Your task to perform on an android device: What's the news in Bangladesh? Image 0: 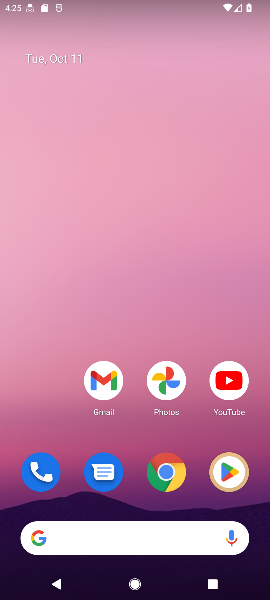
Step 0: click (171, 483)
Your task to perform on an android device: What's the news in Bangladesh? Image 1: 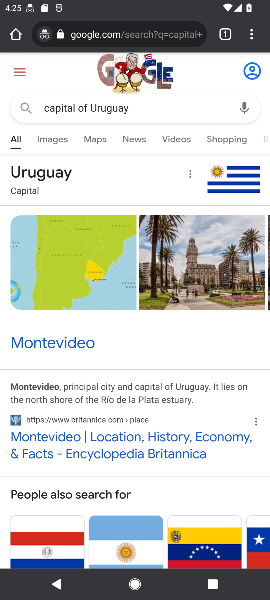
Step 1: click (121, 39)
Your task to perform on an android device: What's the news in Bangladesh? Image 2: 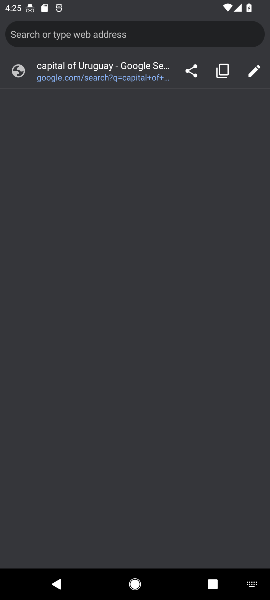
Step 2: type " news in Bangladesh?"
Your task to perform on an android device: What's the news in Bangladesh? Image 3: 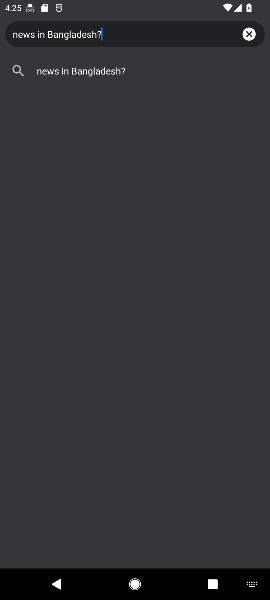
Step 3: click (40, 78)
Your task to perform on an android device: What's the news in Bangladesh? Image 4: 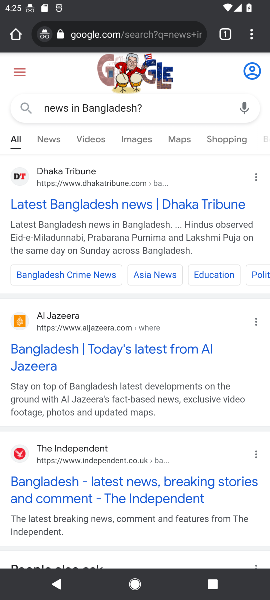
Step 4: click (47, 137)
Your task to perform on an android device: What's the news in Bangladesh? Image 5: 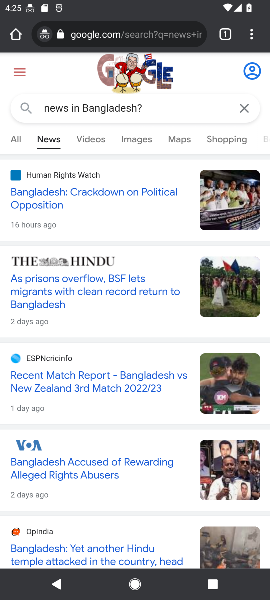
Step 5: task complete